Your task to perform on an android device: Go to wifi settings Image 0: 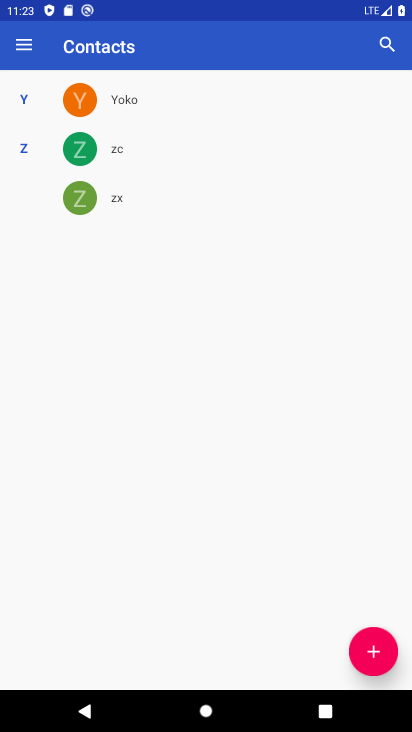
Step 0: press home button
Your task to perform on an android device: Go to wifi settings Image 1: 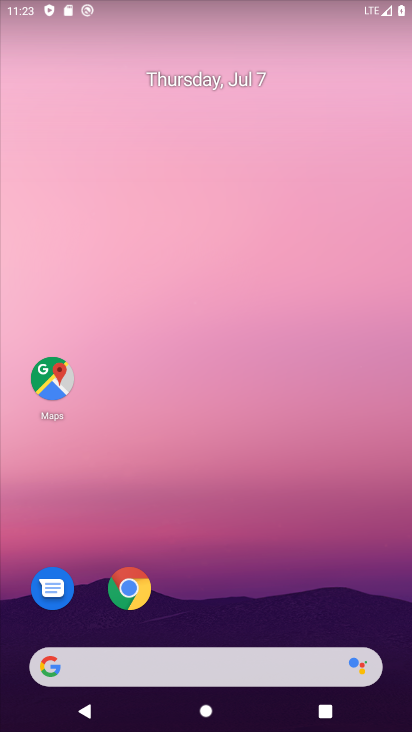
Step 1: drag from (241, 625) to (231, 451)
Your task to perform on an android device: Go to wifi settings Image 2: 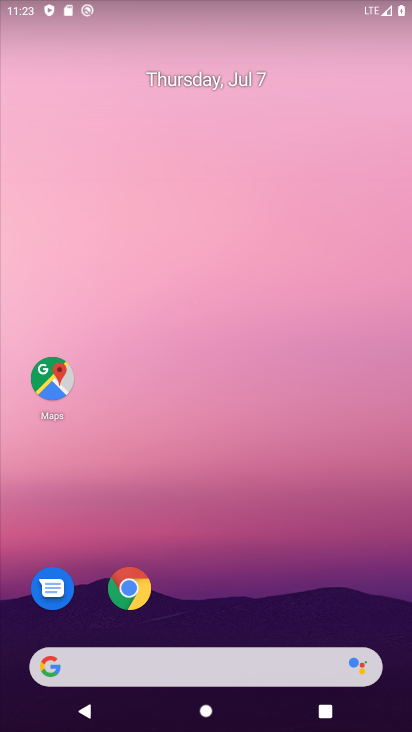
Step 2: drag from (254, 500) to (250, 7)
Your task to perform on an android device: Go to wifi settings Image 3: 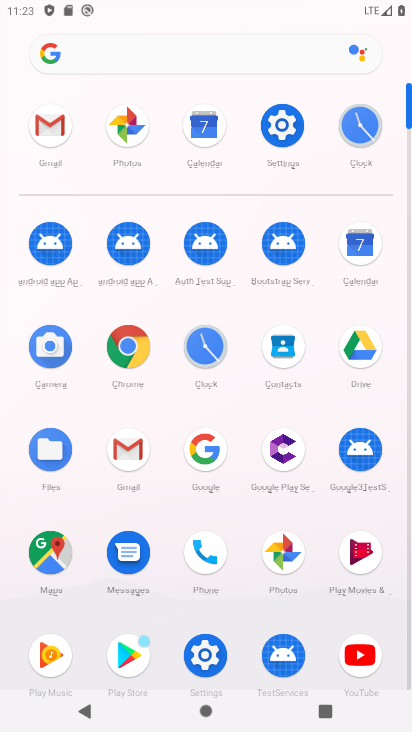
Step 3: click (284, 124)
Your task to perform on an android device: Go to wifi settings Image 4: 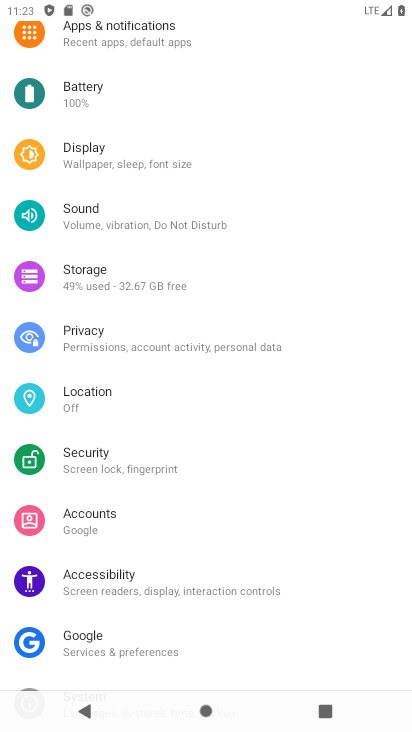
Step 4: drag from (285, 128) to (278, 532)
Your task to perform on an android device: Go to wifi settings Image 5: 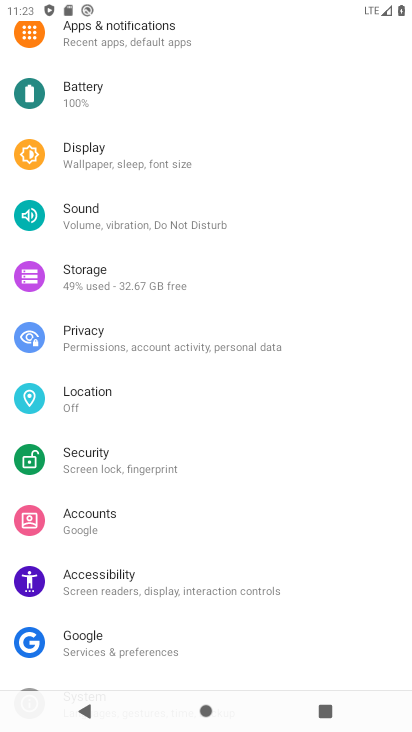
Step 5: drag from (151, 165) to (150, 518)
Your task to perform on an android device: Go to wifi settings Image 6: 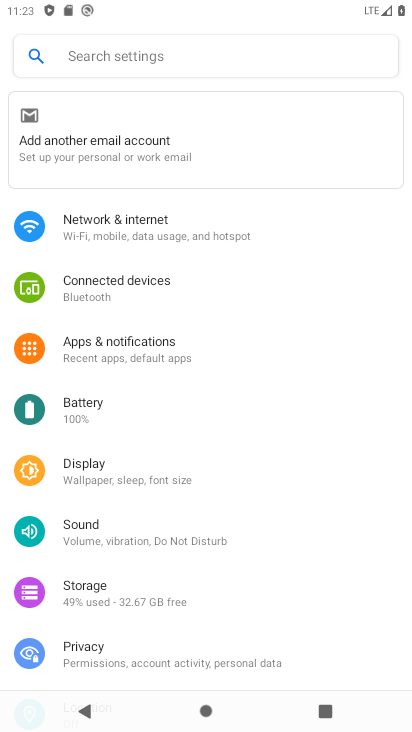
Step 6: click (194, 212)
Your task to perform on an android device: Go to wifi settings Image 7: 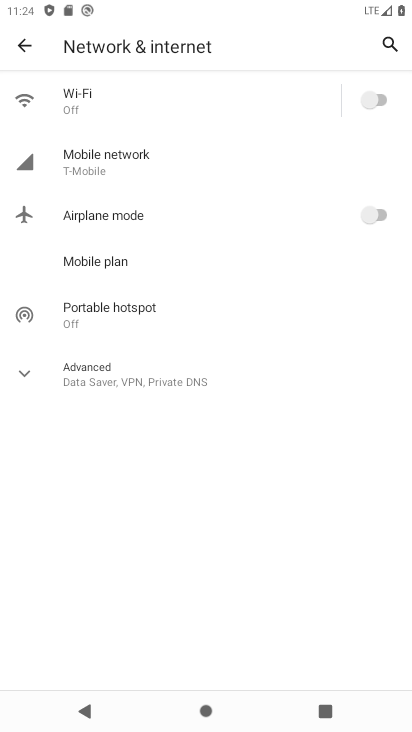
Step 7: click (202, 97)
Your task to perform on an android device: Go to wifi settings Image 8: 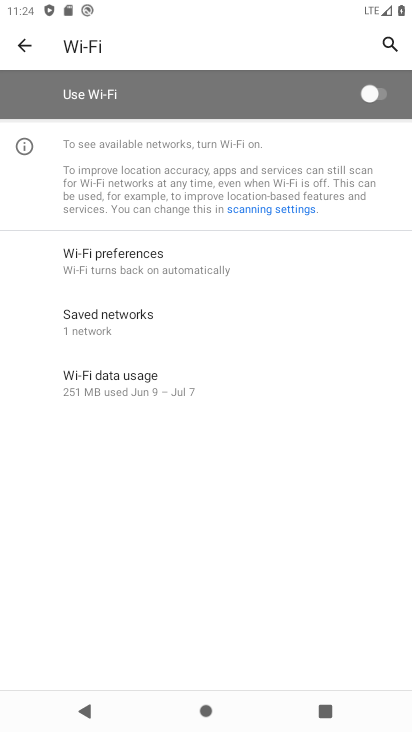
Step 8: task complete